Your task to perform on an android device: check google app version Image 0: 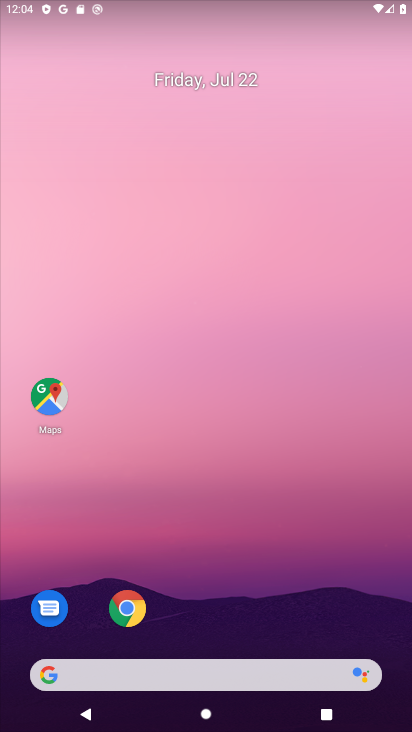
Step 0: drag from (211, 629) to (230, 65)
Your task to perform on an android device: check google app version Image 1: 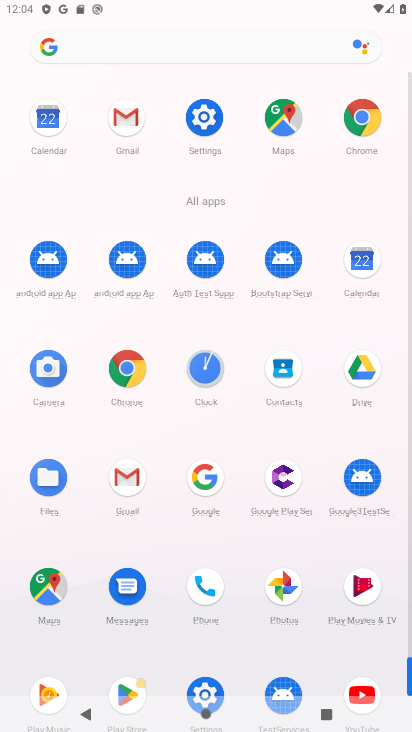
Step 1: click (204, 469)
Your task to perform on an android device: check google app version Image 2: 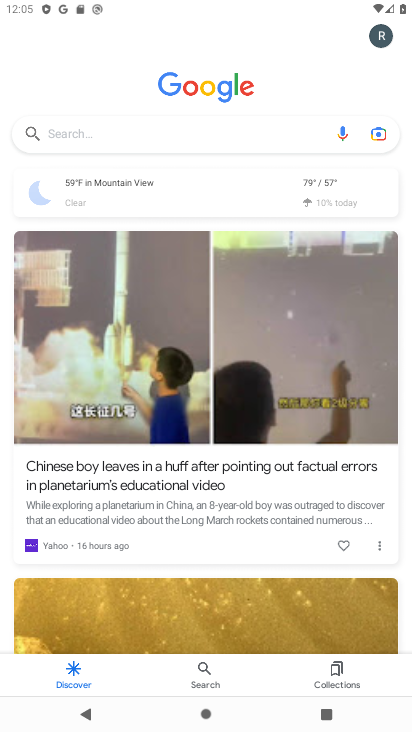
Step 2: click (381, 31)
Your task to perform on an android device: check google app version Image 3: 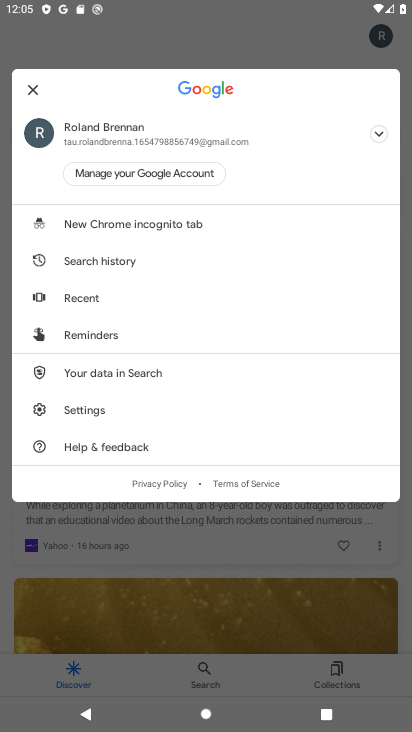
Step 3: click (109, 412)
Your task to perform on an android device: check google app version Image 4: 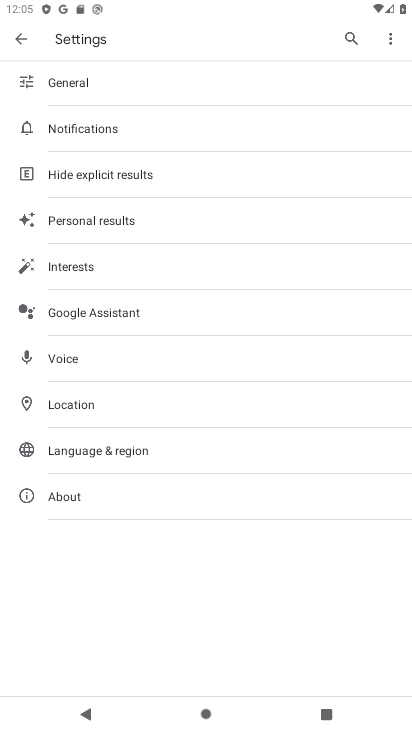
Step 4: click (87, 499)
Your task to perform on an android device: check google app version Image 5: 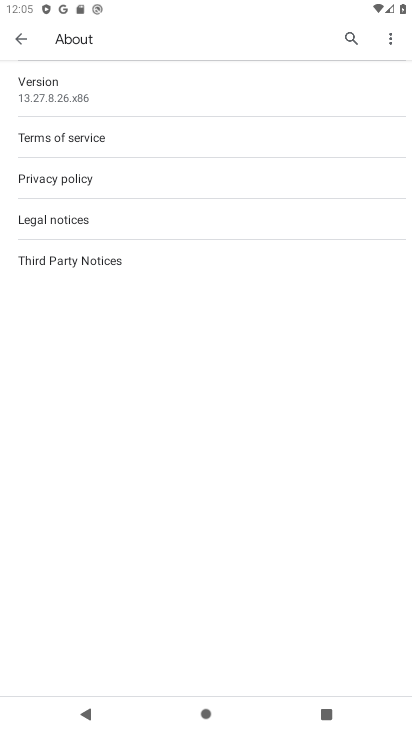
Step 5: task complete